Your task to perform on an android device: delete the emails in spam in the gmail app Image 0: 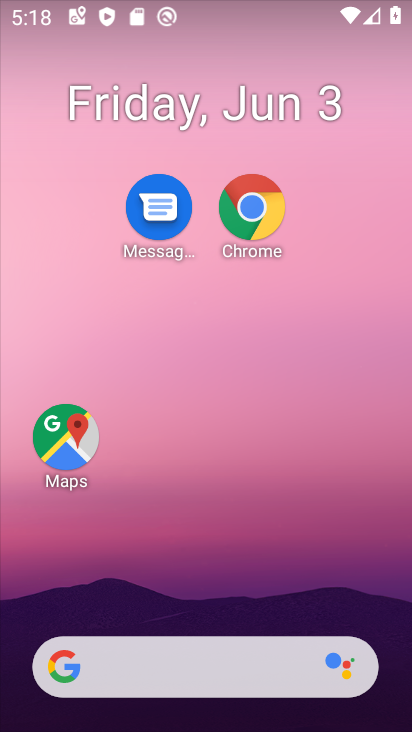
Step 0: drag from (220, 583) to (303, 196)
Your task to perform on an android device: delete the emails in spam in the gmail app Image 1: 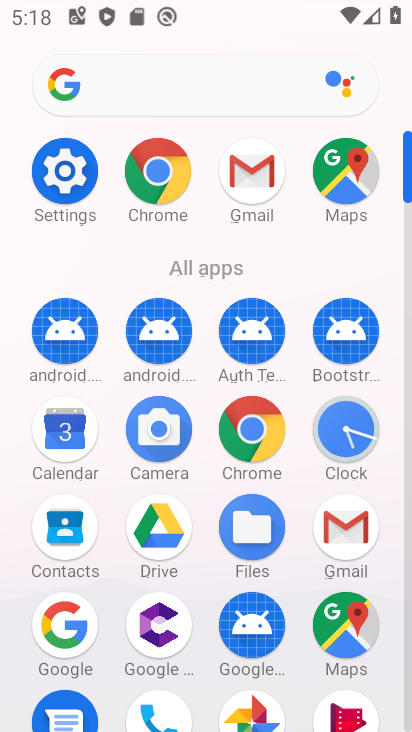
Step 1: click (259, 160)
Your task to perform on an android device: delete the emails in spam in the gmail app Image 2: 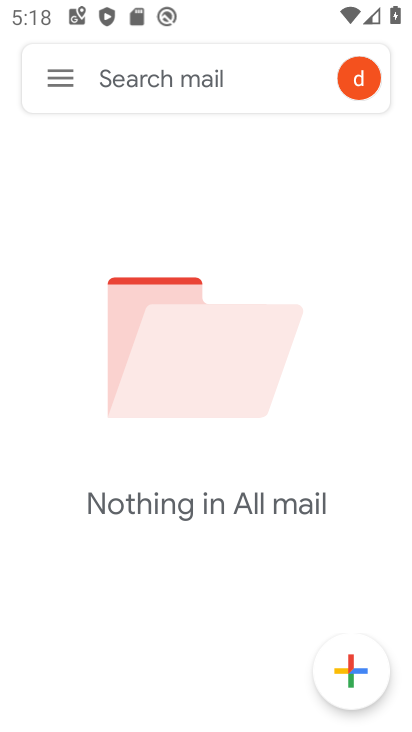
Step 2: click (68, 83)
Your task to perform on an android device: delete the emails in spam in the gmail app Image 3: 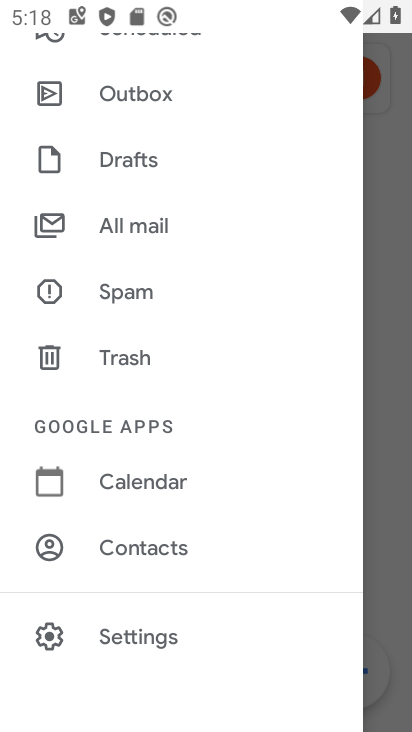
Step 3: click (141, 293)
Your task to perform on an android device: delete the emails in spam in the gmail app Image 4: 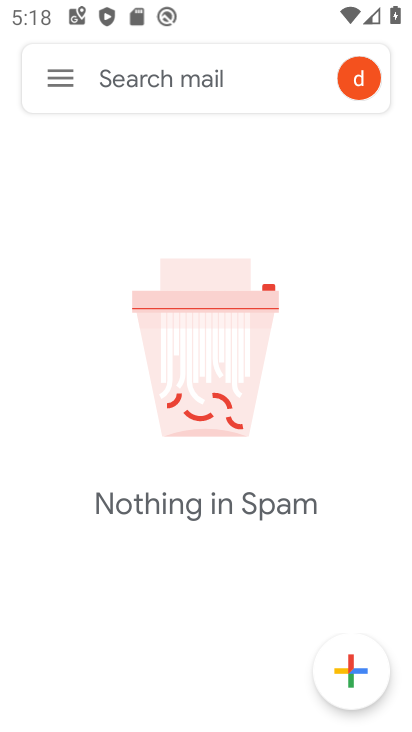
Step 4: task complete